Your task to perform on an android device: Open Google Chrome and open the bookmarks view Image 0: 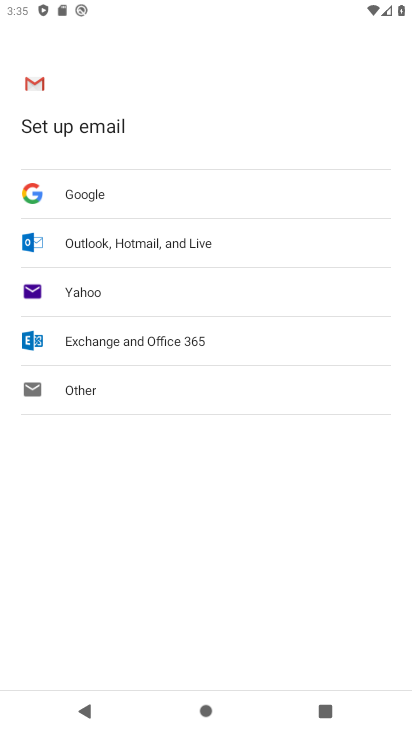
Step 0: press home button
Your task to perform on an android device: Open Google Chrome and open the bookmarks view Image 1: 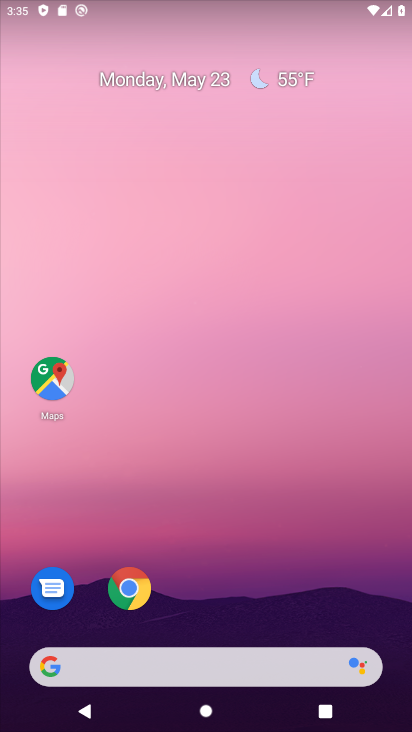
Step 1: click (139, 594)
Your task to perform on an android device: Open Google Chrome and open the bookmarks view Image 2: 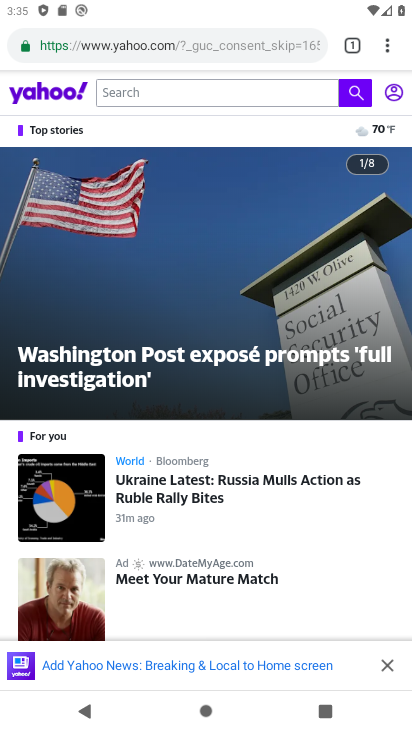
Step 2: click (384, 42)
Your task to perform on an android device: Open Google Chrome and open the bookmarks view Image 3: 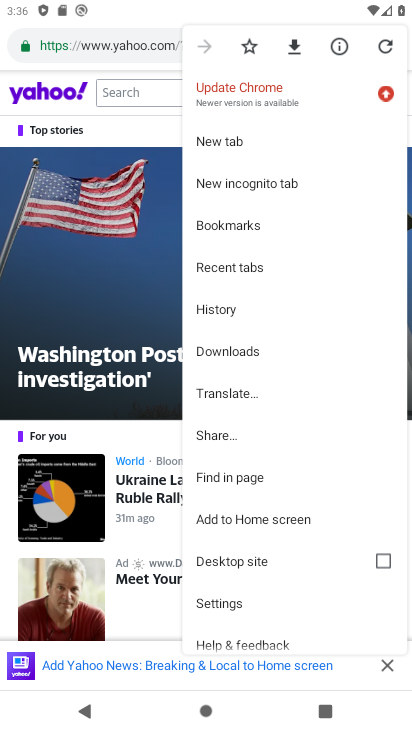
Step 3: click (244, 216)
Your task to perform on an android device: Open Google Chrome and open the bookmarks view Image 4: 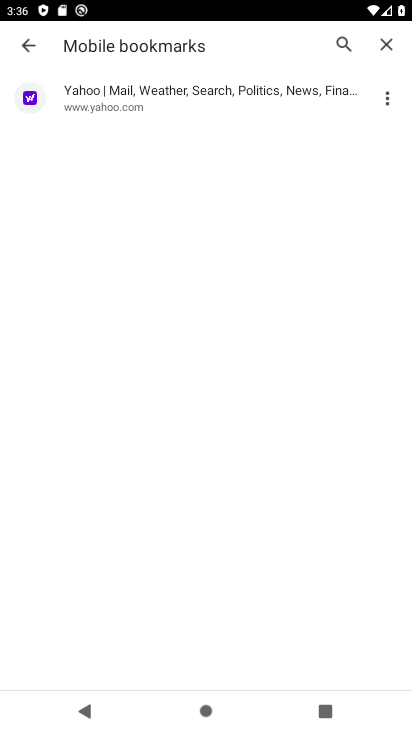
Step 4: click (144, 100)
Your task to perform on an android device: Open Google Chrome and open the bookmarks view Image 5: 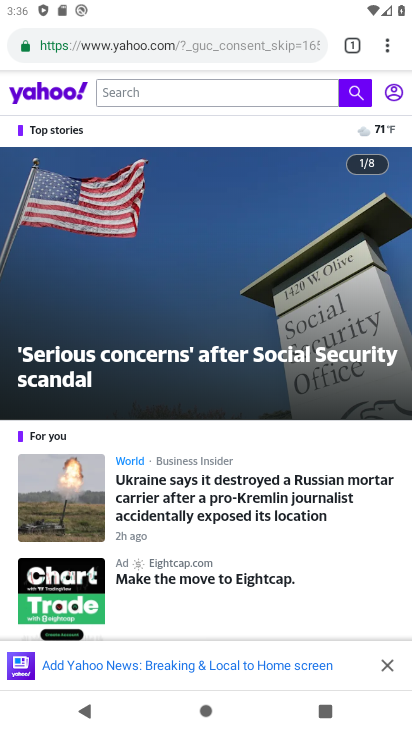
Step 5: task complete